Your task to perform on an android device: read, delete, or share a saved page in the chrome app Image 0: 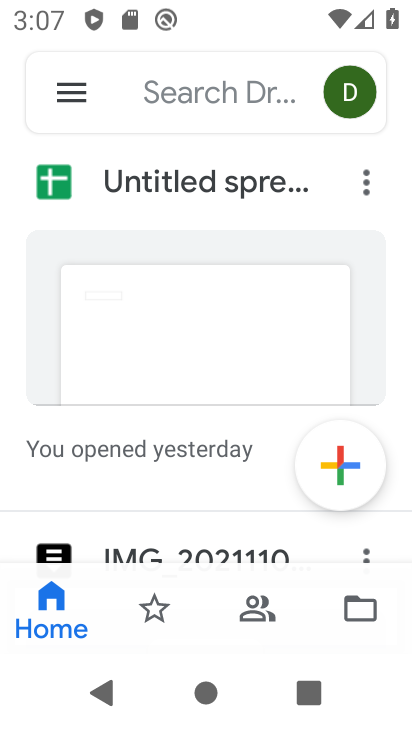
Step 0: press home button
Your task to perform on an android device: read, delete, or share a saved page in the chrome app Image 1: 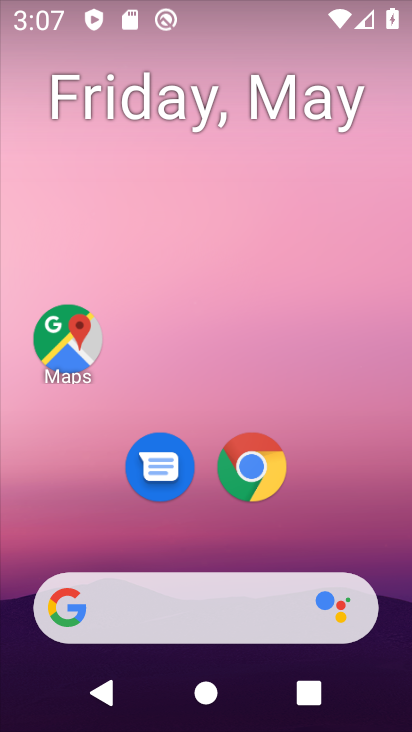
Step 1: click (261, 470)
Your task to perform on an android device: read, delete, or share a saved page in the chrome app Image 2: 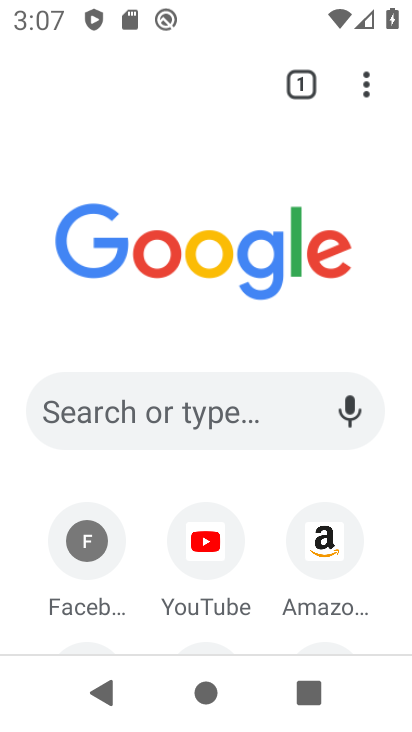
Step 2: task complete